Your task to perform on an android device: toggle priority inbox in the gmail app Image 0: 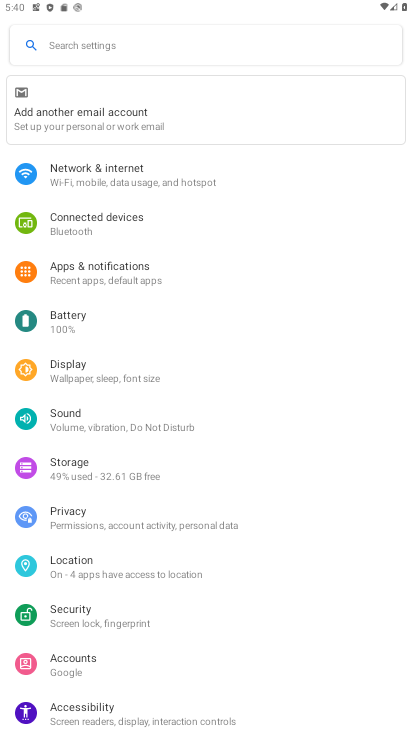
Step 0: press home button
Your task to perform on an android device: toggle priority inbox in the gmail app Image 1: 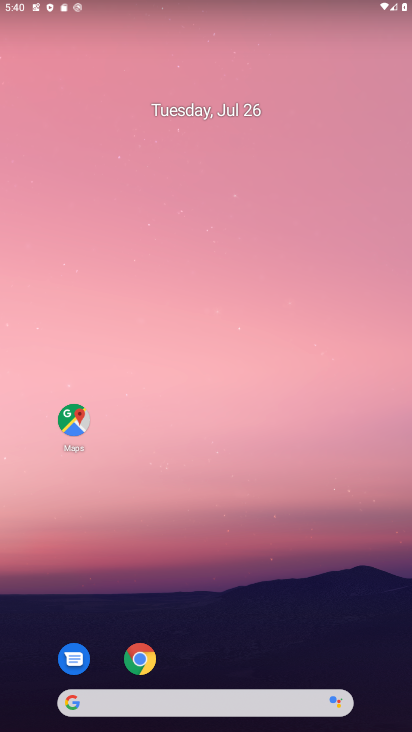
Step 1: drag from (218, 660) to (283, 31)
Your task to perform on an android device: toggle priority inbox in the gmail app Image 2: 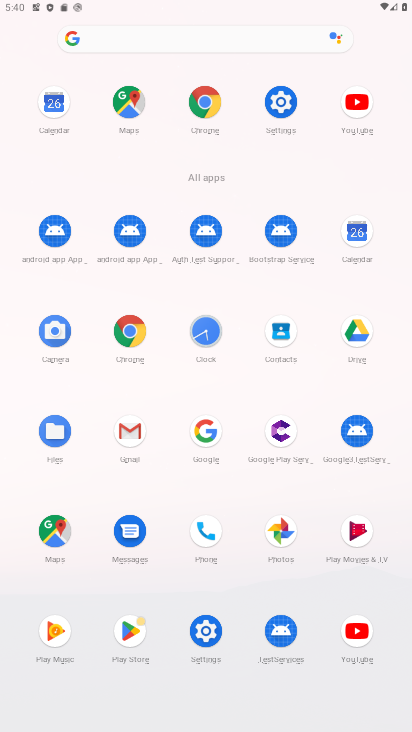
Step 2: click (129, 442)
Your task to perform on an android device: toggle priority inbox in the gmail app Image 3: 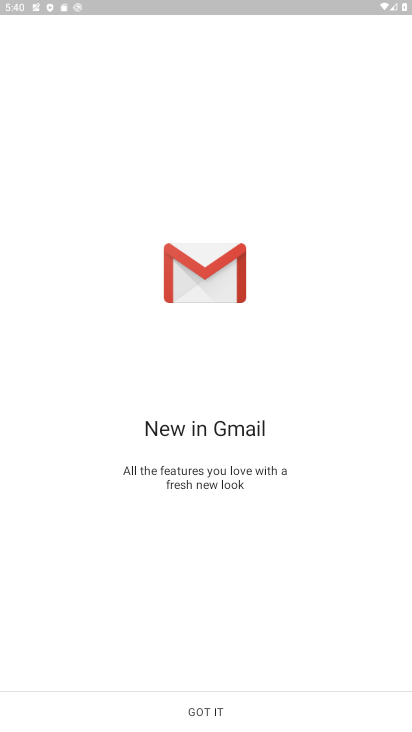
Step 3: click (208, 708)
Your task to perform on an android device: toggle priority inbox in the gmail app Image 4: 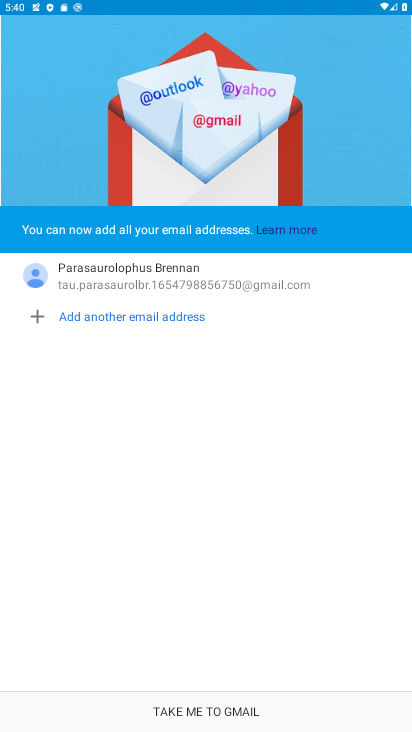
Step 4: click (108, 275)
Your task to perform on an android device: toggle priority inbox in the gmail app Image 5: 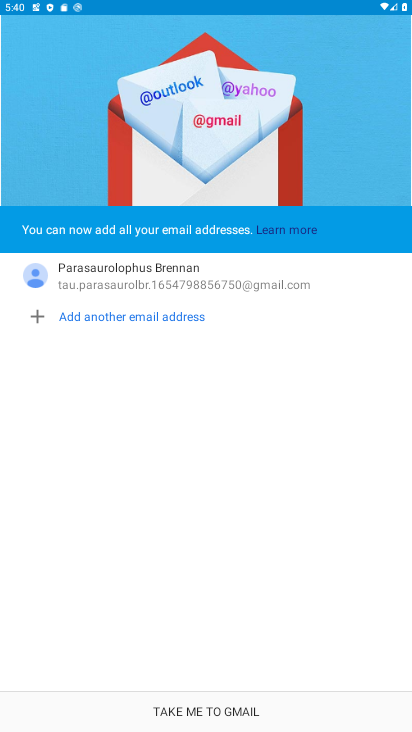
Step 5: click (244, 712)
Your task to perform on an android device: toggle priority inbox in the gmail app Image 6: 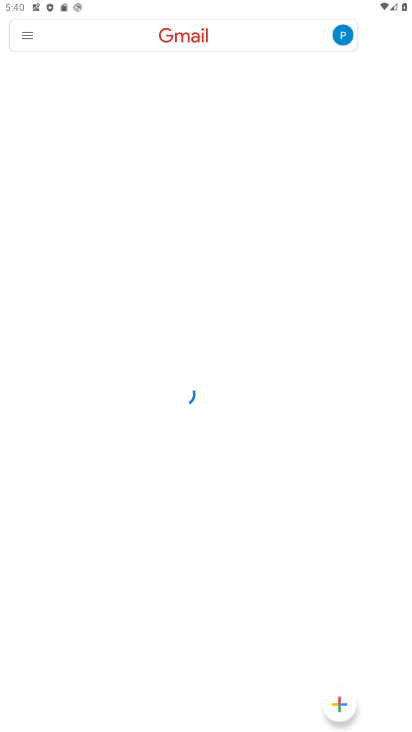
Step 6: task complete